Your task to perform on an android device: Open the phone app and click the voicemail tab. Image 0: 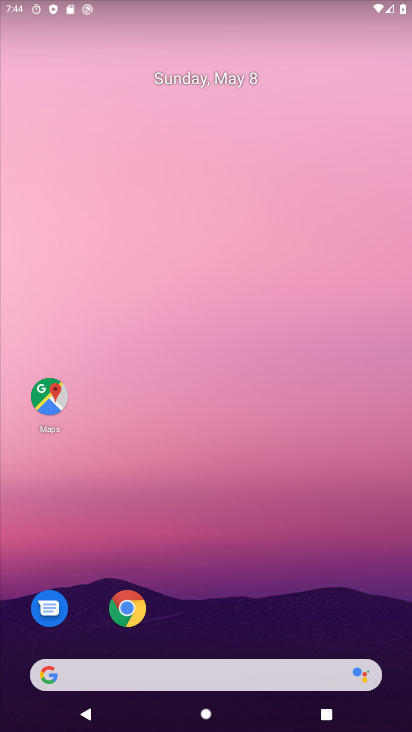
Step 0: drag from (300, 613) to (338, 72)
Your task to perform on an android device: Open the phone app and click the voicemail tab. Image 1: 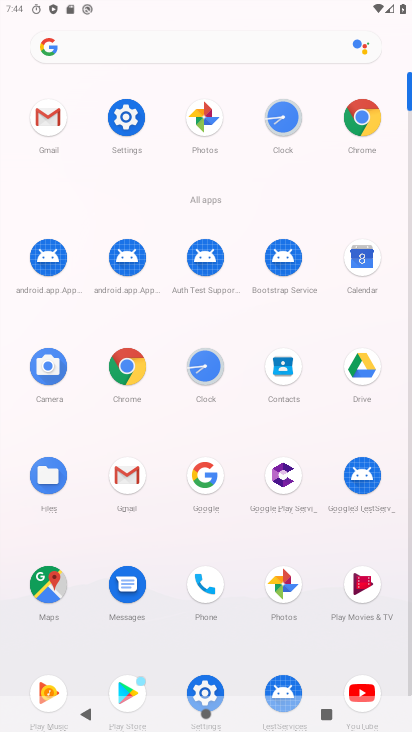
Step 1: click (199, 589)
Your task to perform on an android device: Open the phone app and click the voicemail tab. Image 2: 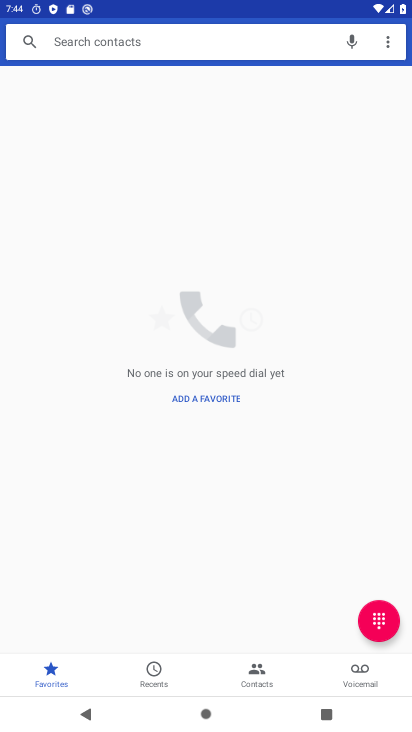
Step 2: click (359, 653)
Your task to perform on an android device: Open the phone app and click the voicemail tab. Image 3: 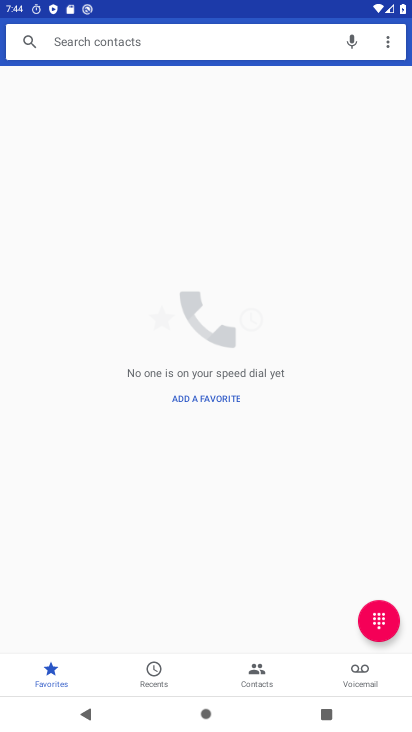
Step 3: click (352, 674)
Your task to perform on an android device: Open the phone app and click the voicemail tab. Image 4: 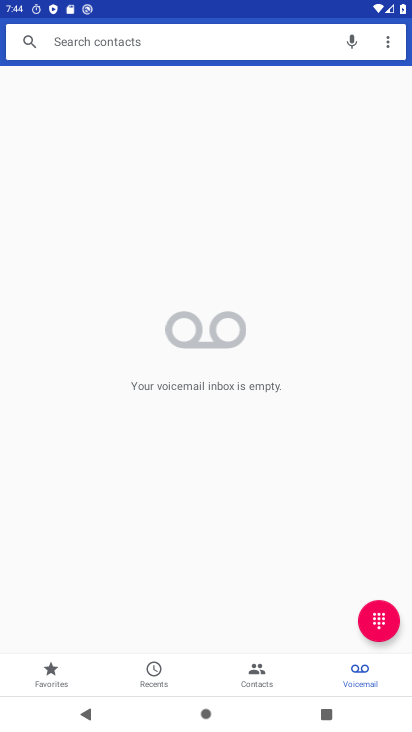
Step 4: click (358, 680)
Your task to perform on an android device: Open the phone app and click the voicemail tab. Image 5: 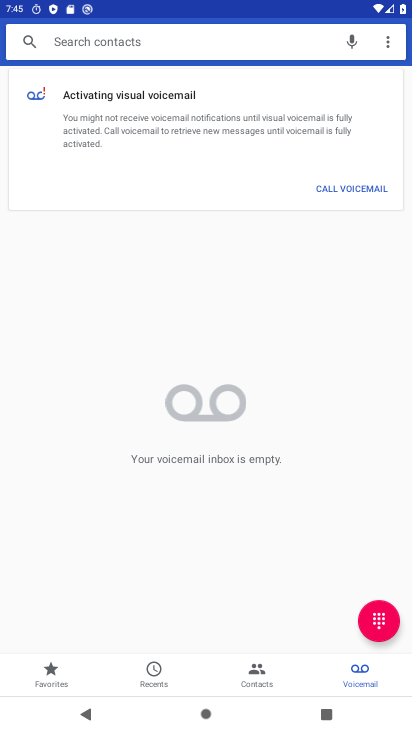
Step 5: task complete